Your task to perform on an android device: Open Android settings Image 0: 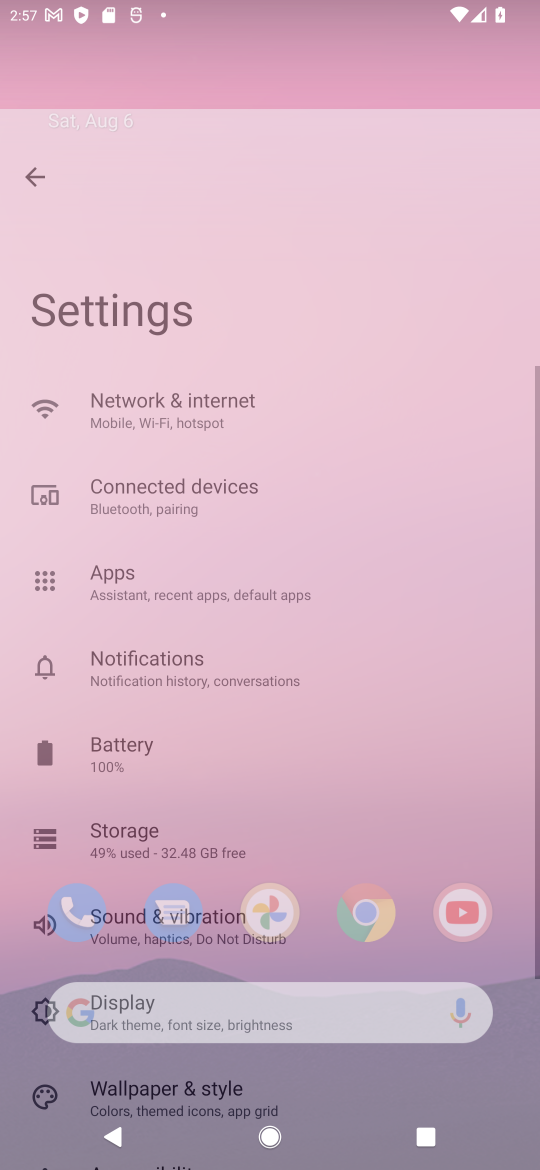
Step 0: click (535, 118)
Your task to perform on an android device: Open Android settings Image 1: 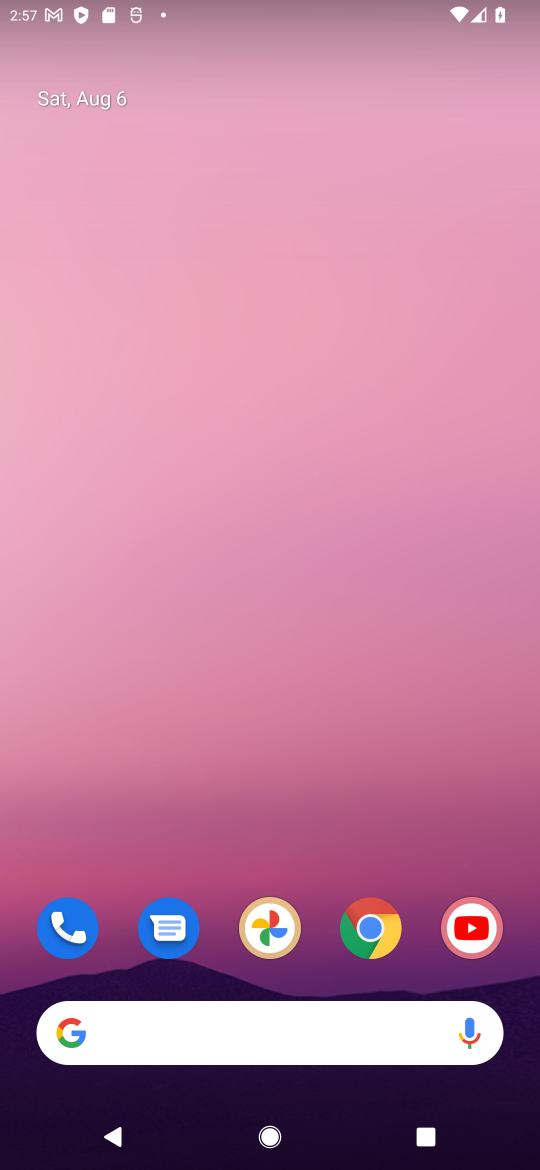
Step 1: drag from (229, 915) to (385, 6)
Your task to perform on an android device: Open Android settings Image 2: 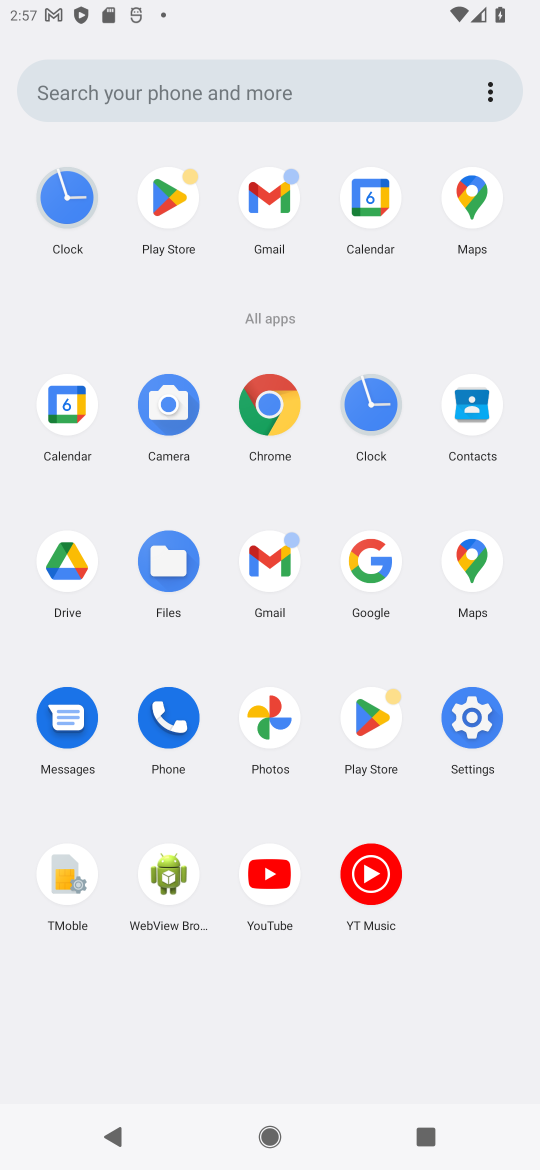
Step 2: click (475, 710)
Your task to perform on an android device: Open Android settings Image 3: 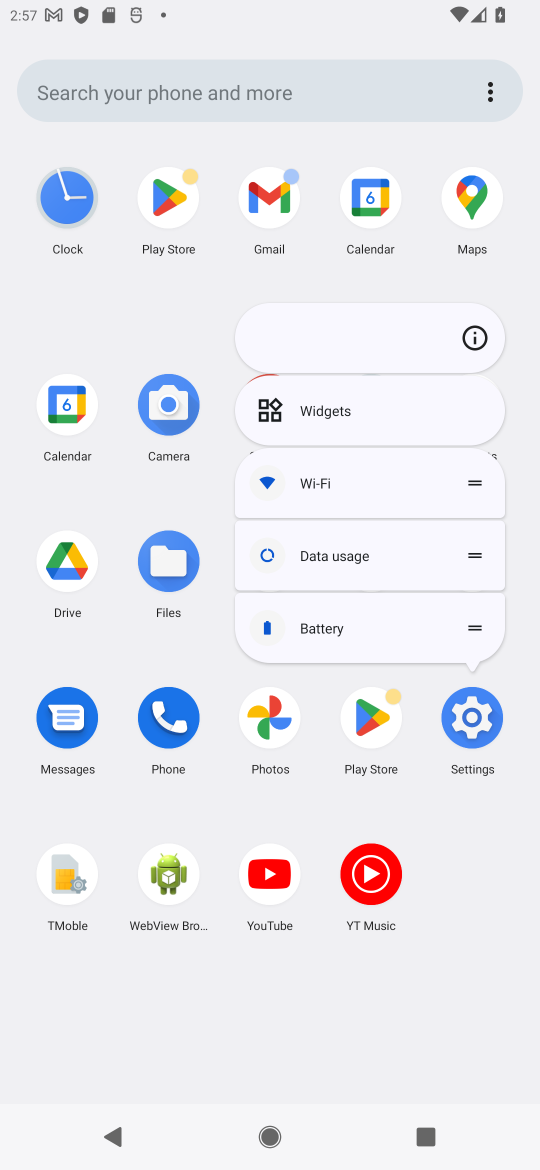
Step 3: click (465, 348)
Your task to perform on an android device: Open Android settings Image 4: 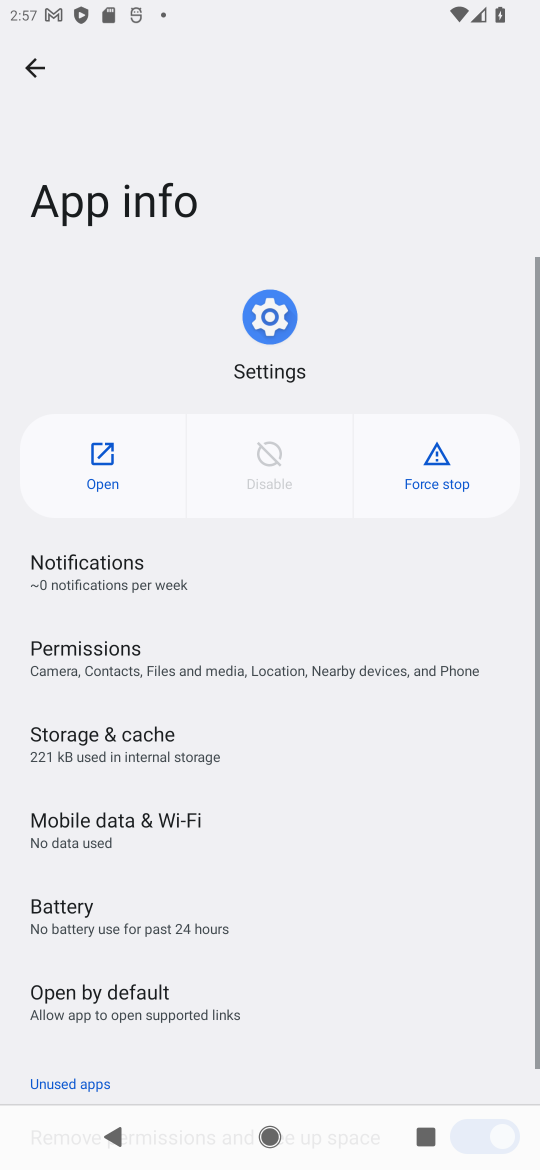
Step 4: click (111, 466)
Your task to perform on an android device: Open Android settings Image 5: 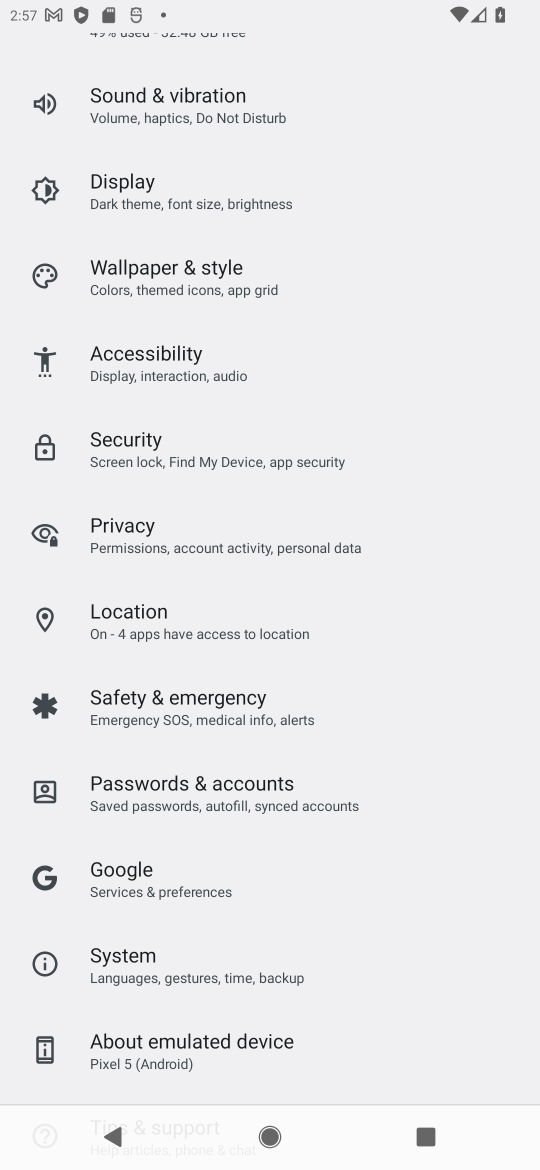
Step 5: drag from (200, 990) to (256, 647)
Your task to perform on an android device: Open Android settings Image 6: 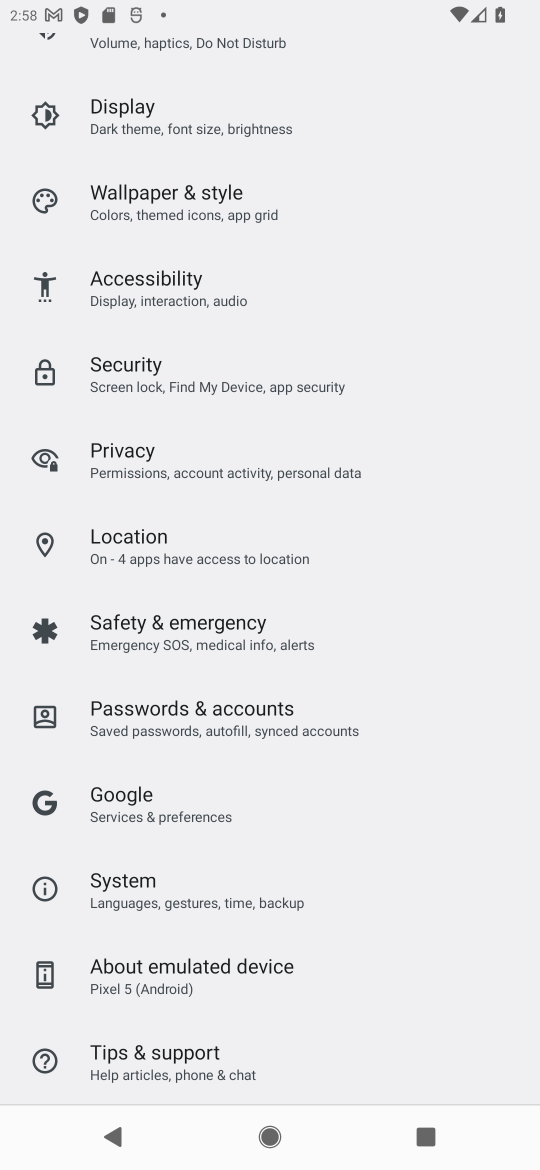
Step 6: click (191, 965)
Your task to perform on an android device: Open Android settings Image 7: 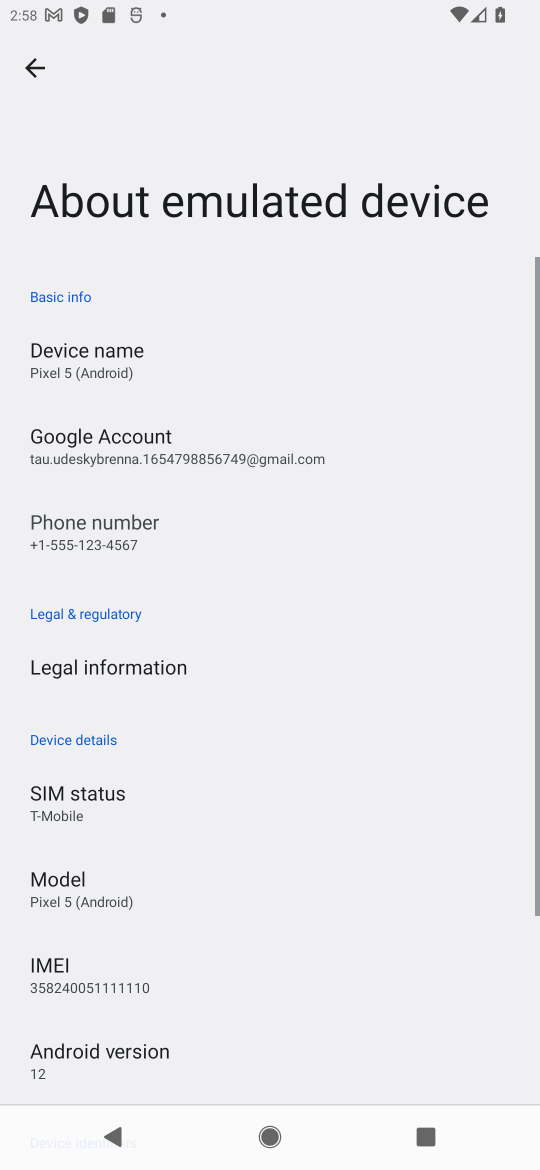
Step 7: drag from (221, 912) to (350, 398)
Your task to perform on an android device: Open Android settings Image 8: 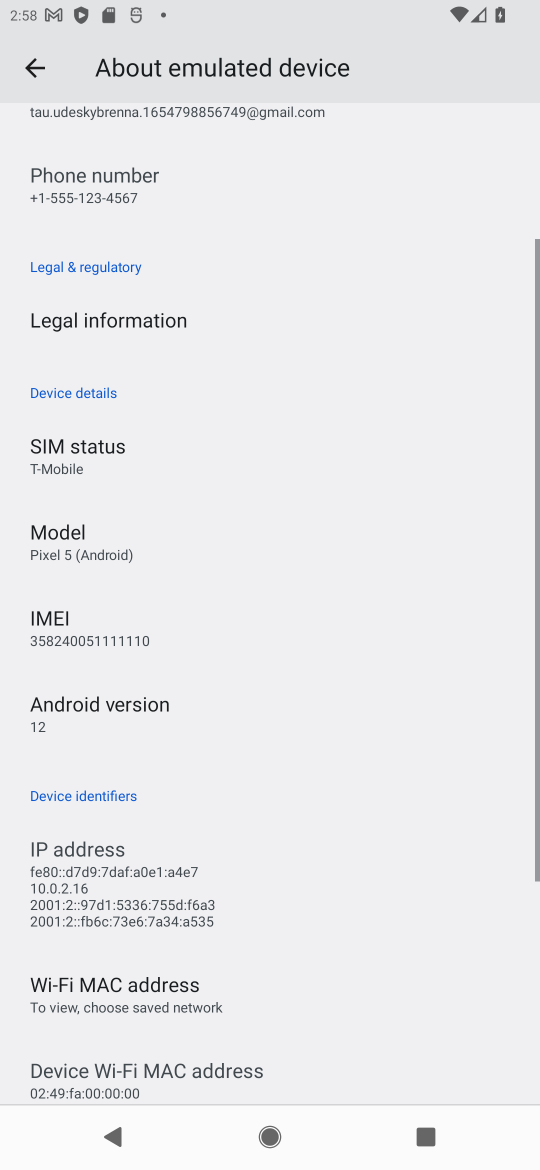
Step 8: click (162, 710)
Your task to perform on an android device: Open Android settings Image 9: 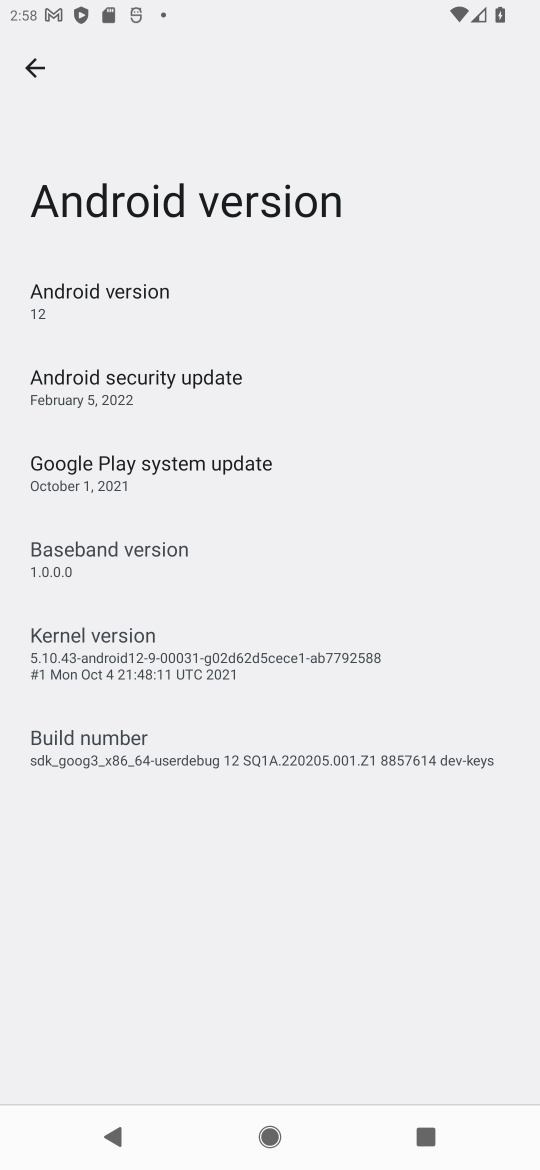
Step 9: click (164, 308)
Your task to perform on an android device: Open Android settings Image 10: 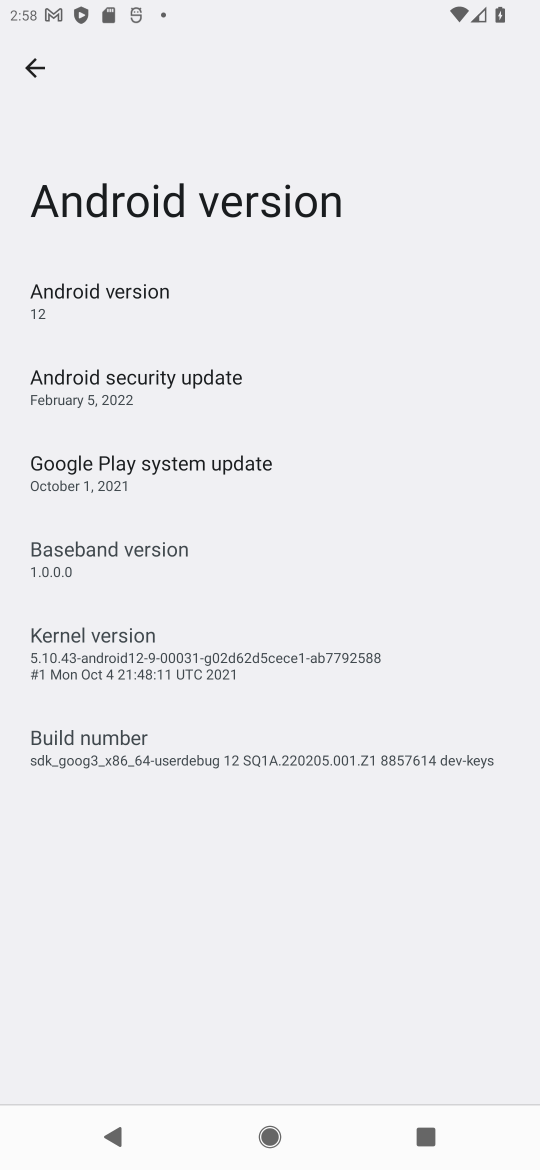
Step 10: task complete